Your task to perform on an android device: see creations saved in the google photos Image 0: 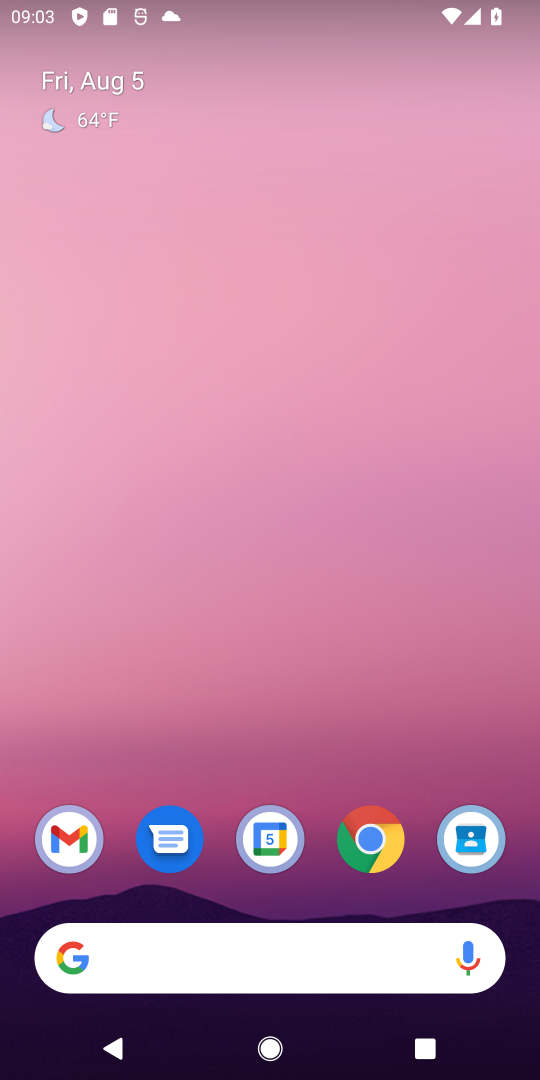
Step 0: drag from (325, 851) to (296, 94)
Your task to perform on an android device: see creations saved in the google photos Image 1: 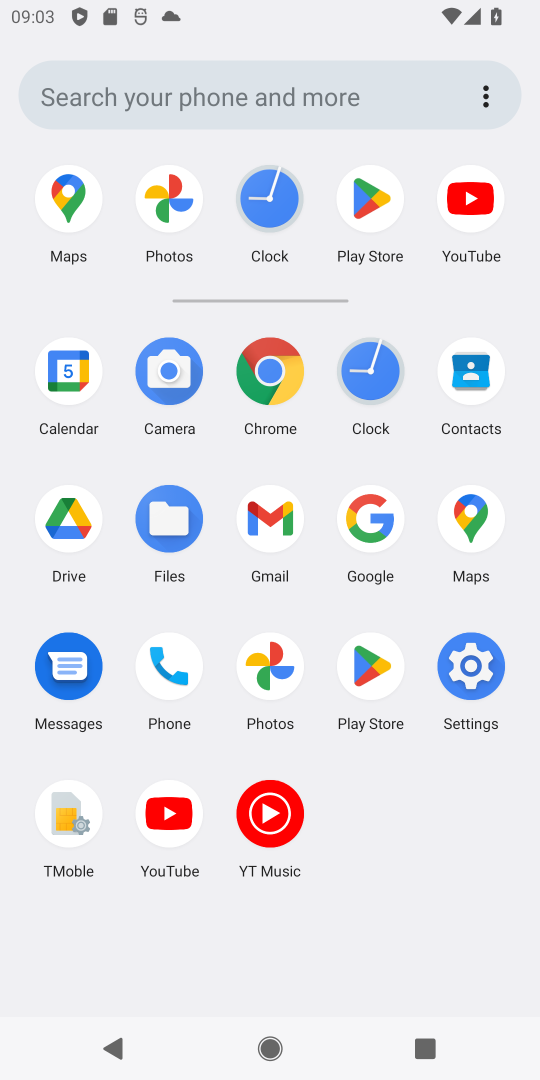
Step 1: click (267, 664)
Your task to perform on an android device: see creations saved in the google photos Image 2: 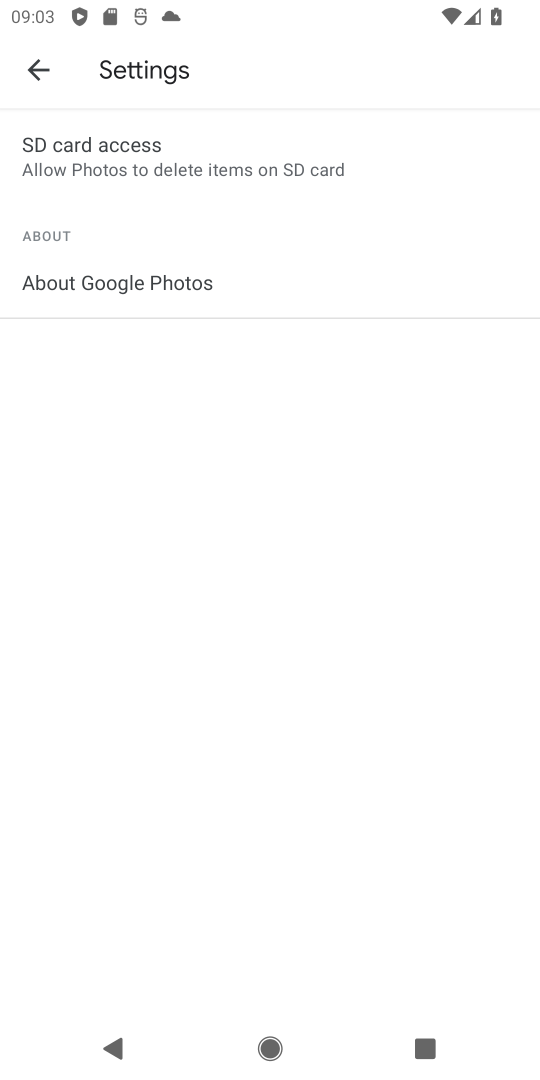
Step 2: click (48, 66)
Your task to perform on an android device: see creations saved in the google photos Image 3: 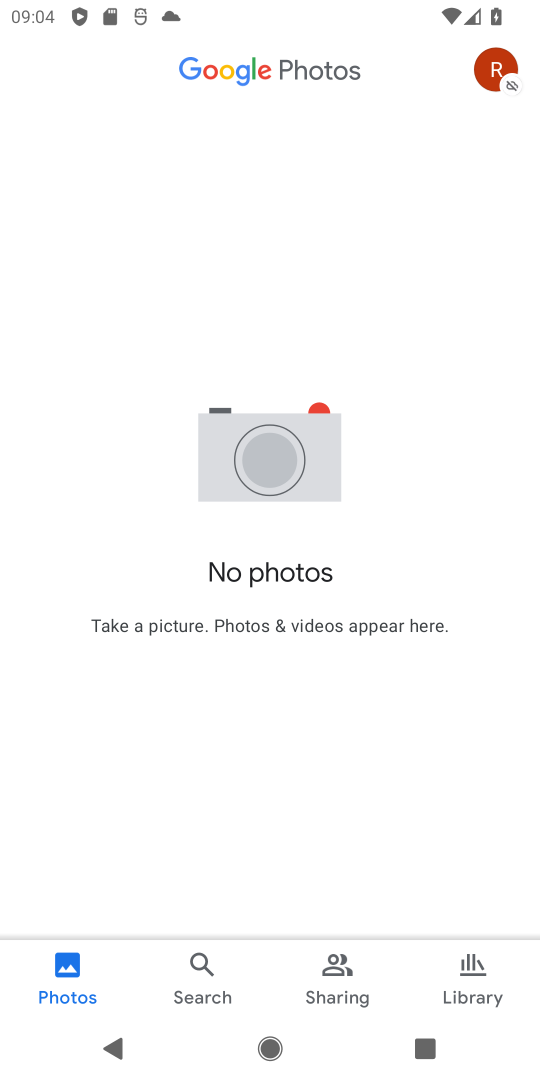
Step 3: click (204, 964)
Your task to perform on an android device: see creations saved in the google photos Image 4: 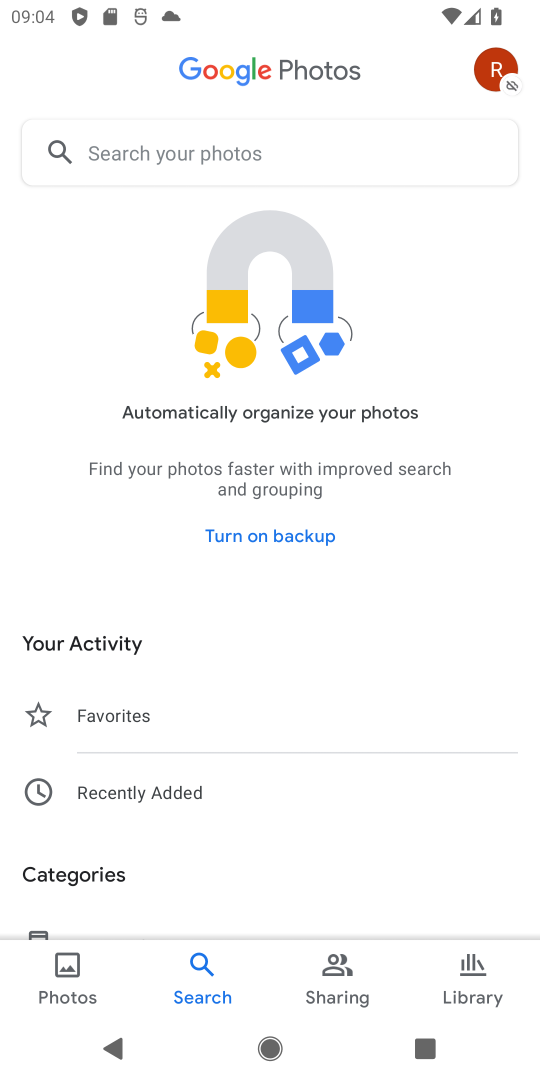
Step 4: drag from (129, 875) to (129, 462)
Your task to perform on an android device: see creations saved in the google photos Image 5: 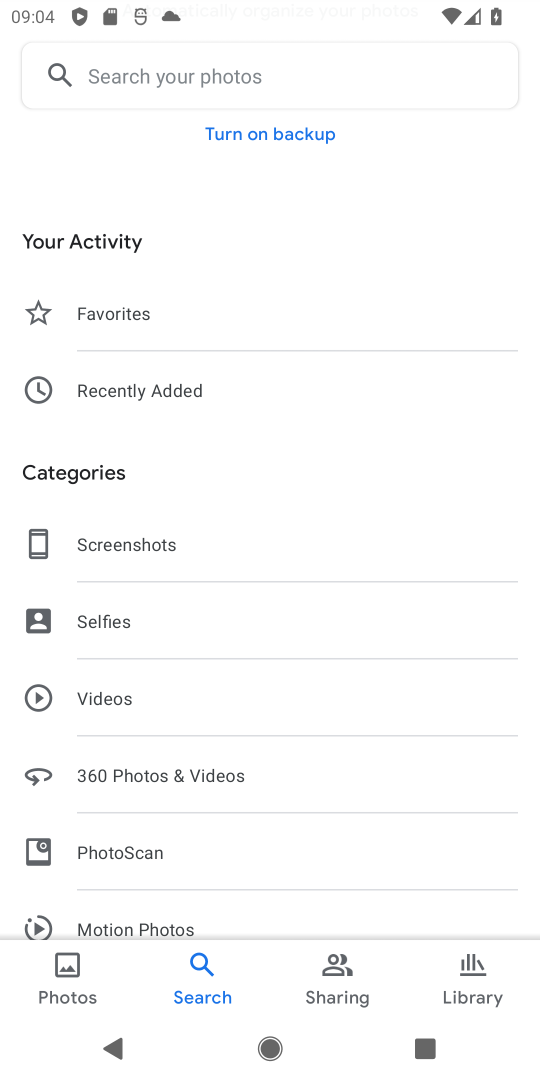
Step 5: drag from (167, 812) to (182, 477)
Your task to perform on an android device: see creations saved in the google photos Image 6: 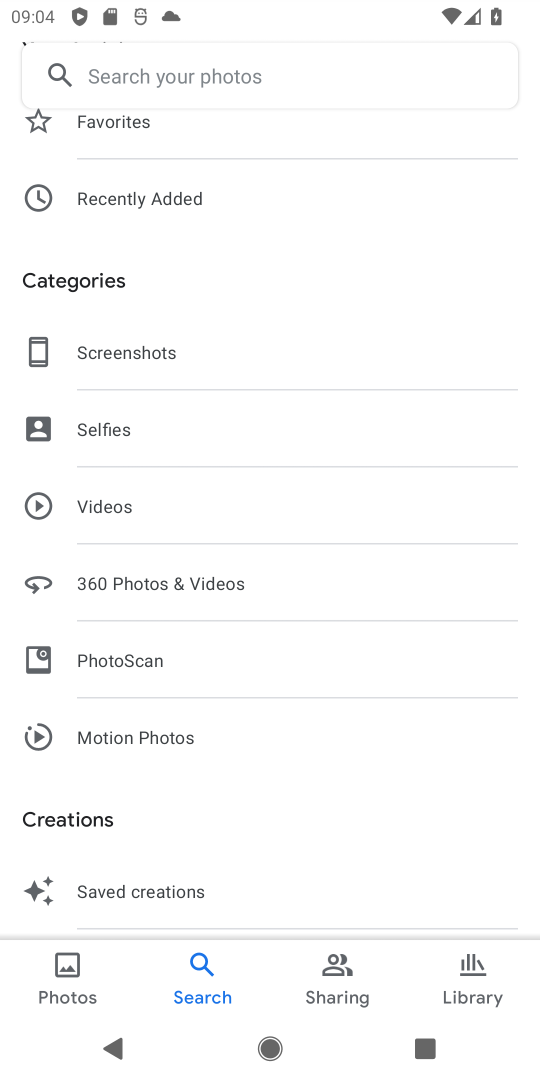
Step 6: drag from (138, 859) to (183, 388)
Your task to perform on an android device: see creations saved in the google photos Image 7: 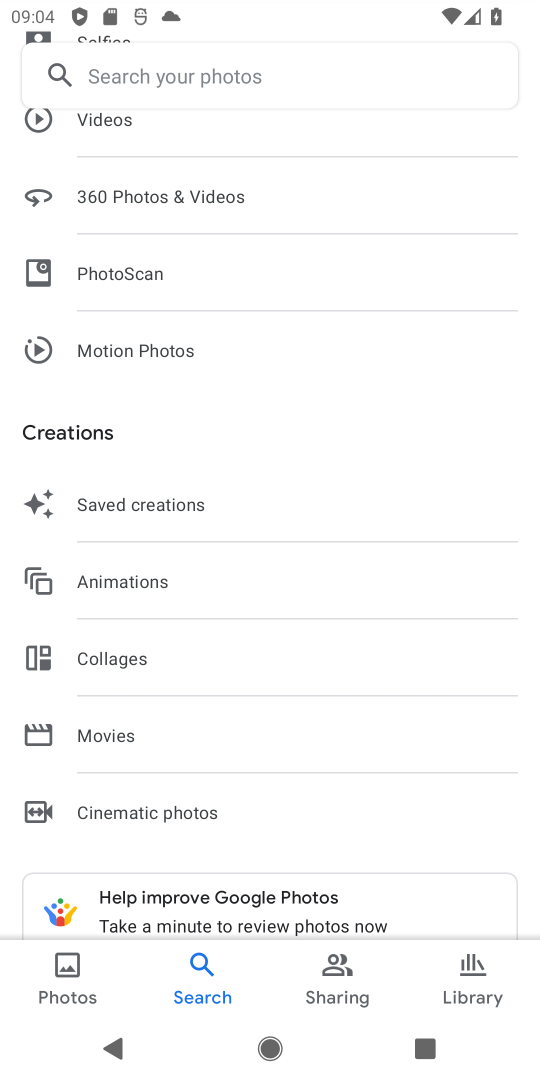
Step 7: click (124, 507)
Your task to perform on an android device: see creations saved in the google photos Image 8: 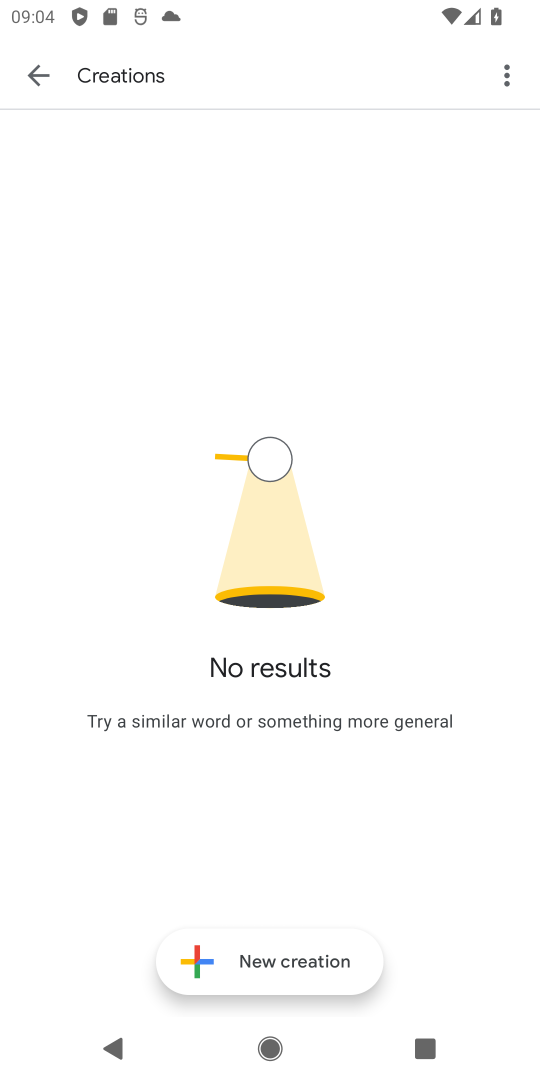
Step 8: task complete